Your task to perform on an android device: Open Maps and search for coffee Image 0: 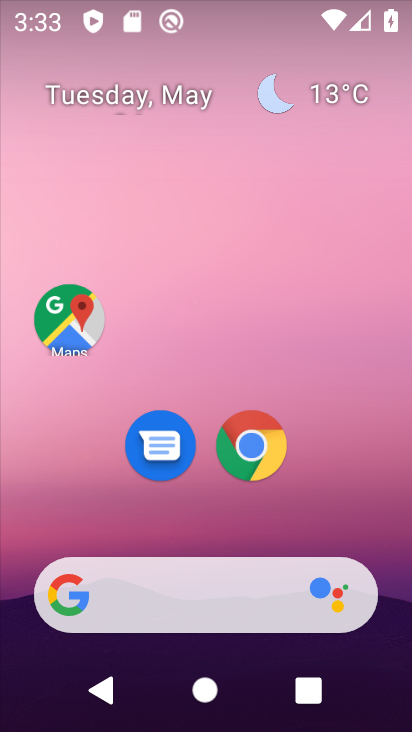
Step 0: click (67, 314)
Your task to perform on an android device: Open Maps and search for coffee Image 1: 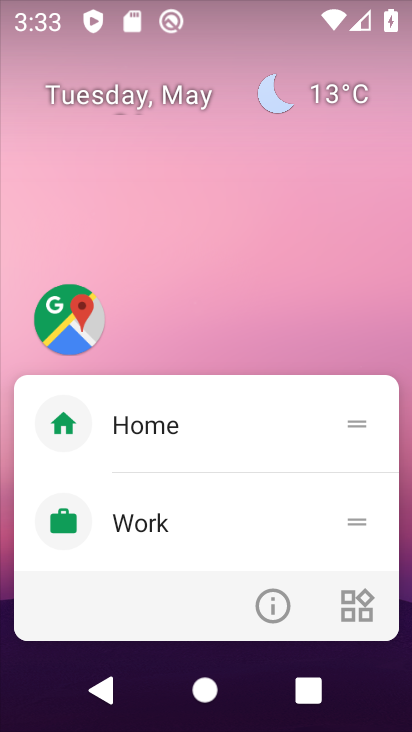
Step 1: click (71, 309)
Your task to perform on an android device: Open Maps and search for coffee Image 2: 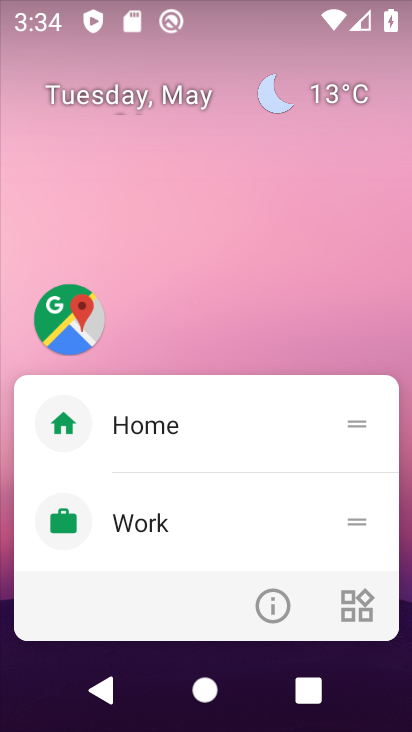
Step 2: click (70, 312)
Your task to perform on an android device: Open Maps and search for coffee Image 3: 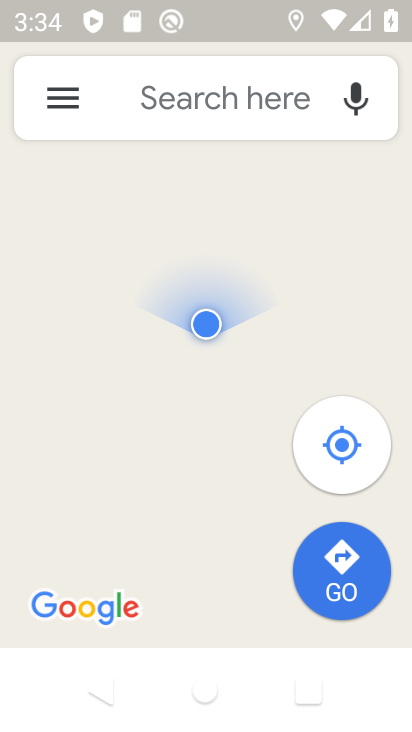
Step 3: click (189, 92)
Your task to perform on an android device: Open Maps and search for coffee Image 4: 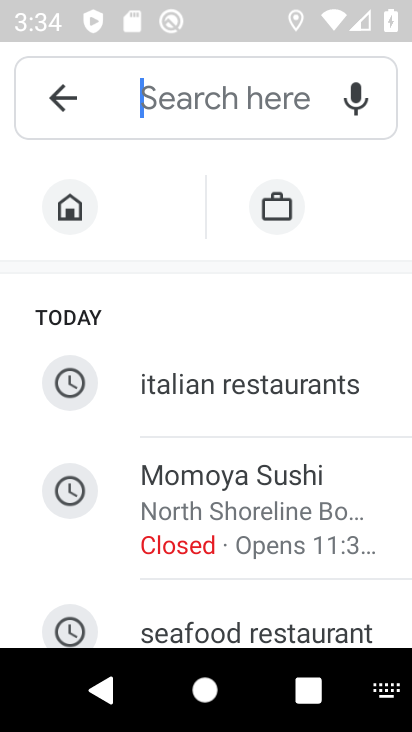
Step 4: click (164, 99)
Your task to perform on an android device: Open Maps and search for coffee Image 5: 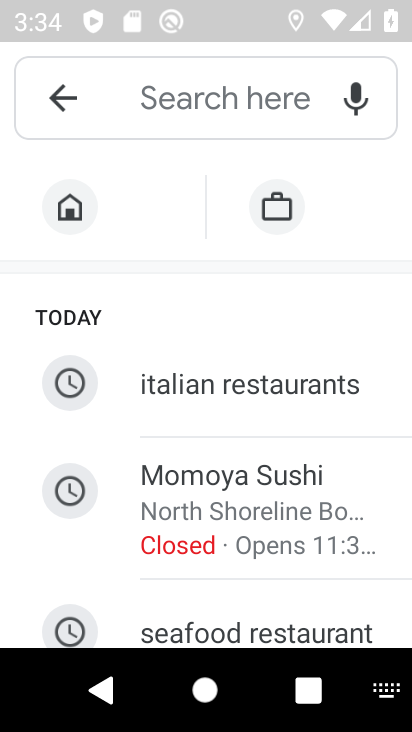
Step 5: type "coffee"
Your task to perform on an android device: Open Maps and search for coffee Image 6: 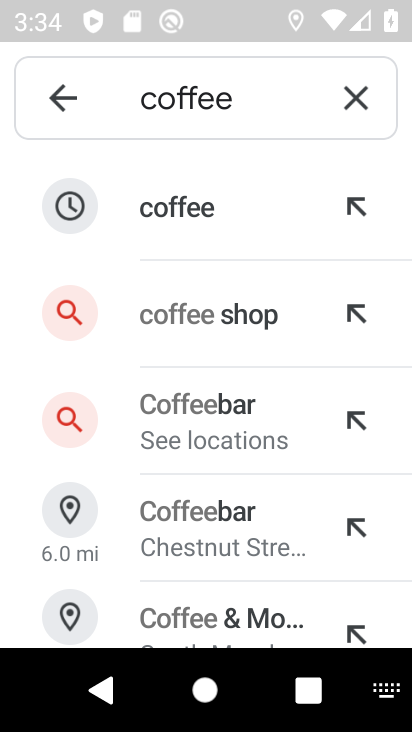
Step 6: click (204, 221)
Your task to perform on an android device: Open Maps and search for coffee Image 7: 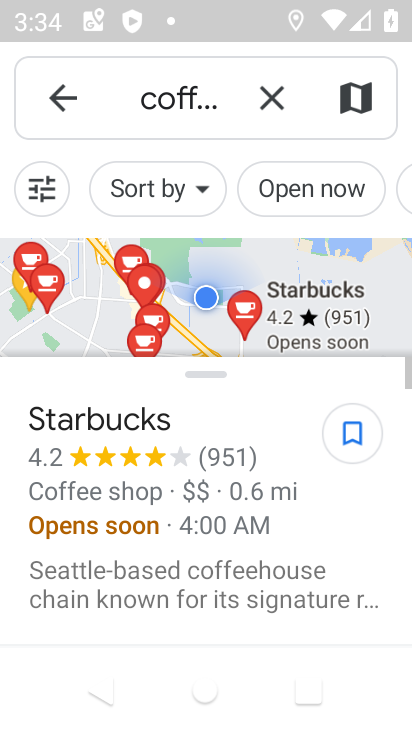
Step 7: task complete